Your task to perform on an android device: toggle pop-ups in chrome Image 0: 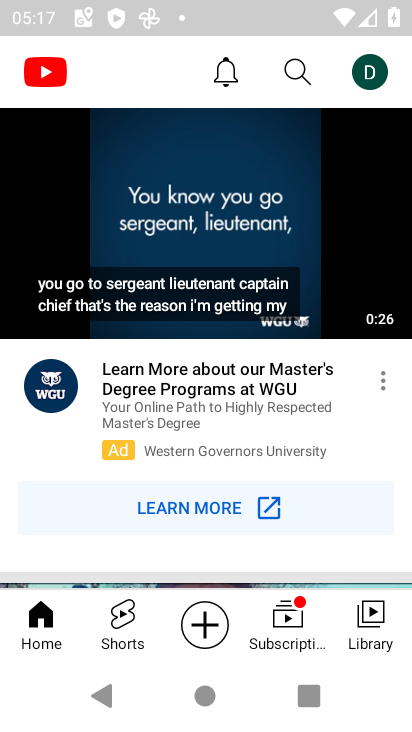
Step 0: press home button
Your task to perform on an android device: toggle pop-ups in chrome Image 1: 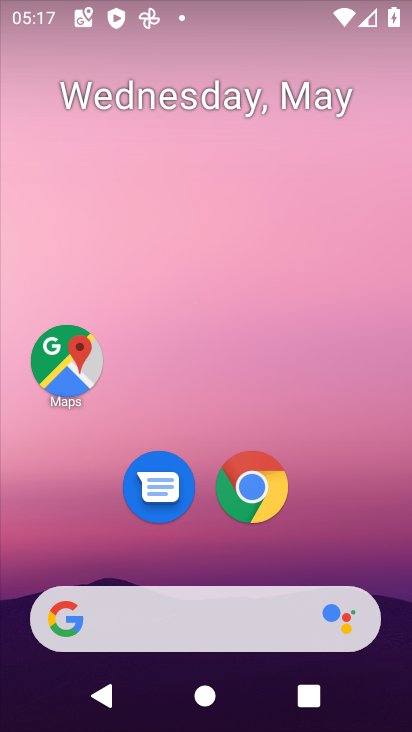
Step 1: click (350, 529)
Your task to perform on an android device: toggle pop-ups in chrome Image 2: 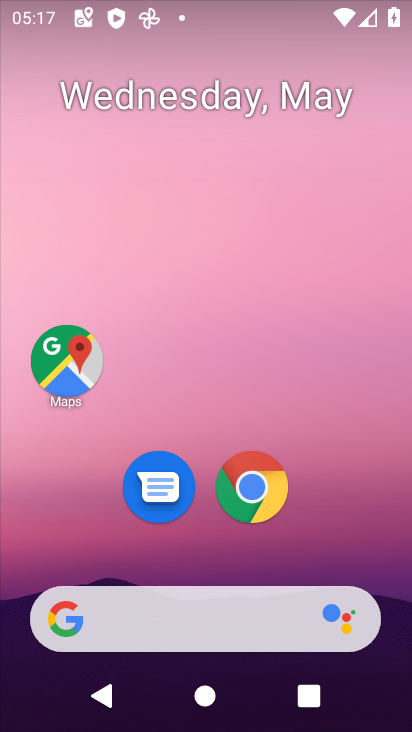
Step 2: click (261, 500)
Your task to perform on an android device: toggle pop-ups in chrome Image 3: 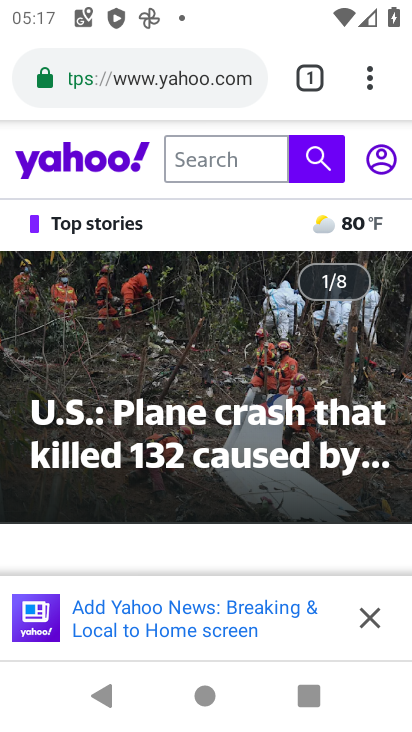
Step 3: click (389, 78)
Your task to perform on an android device: toggle pop-ups in chrome Image 4: 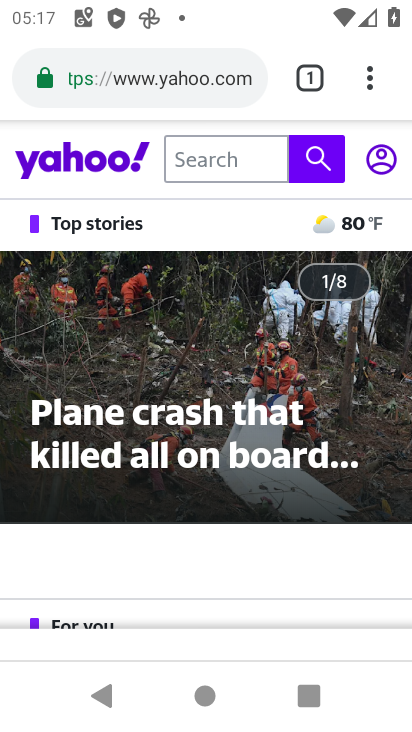
Step 4: click (376, 89)
Your task to perform on an android device: toggle pop-ups in chrome Image 5: 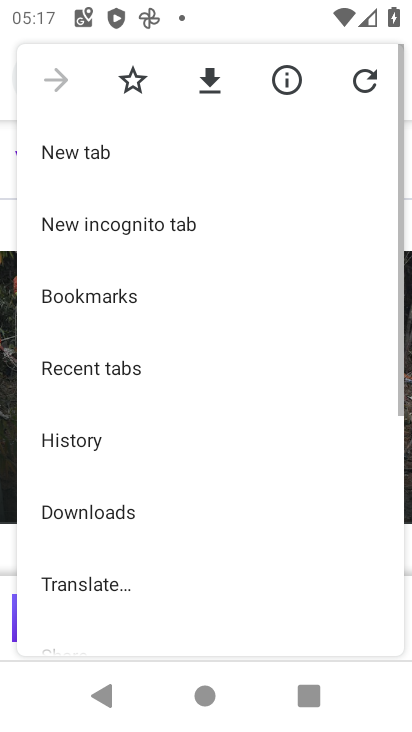
Step 5: drag from (195, 571) to (279, 198)
Your task to perform on an android device: toggle pop-ups in chrome Image 6: 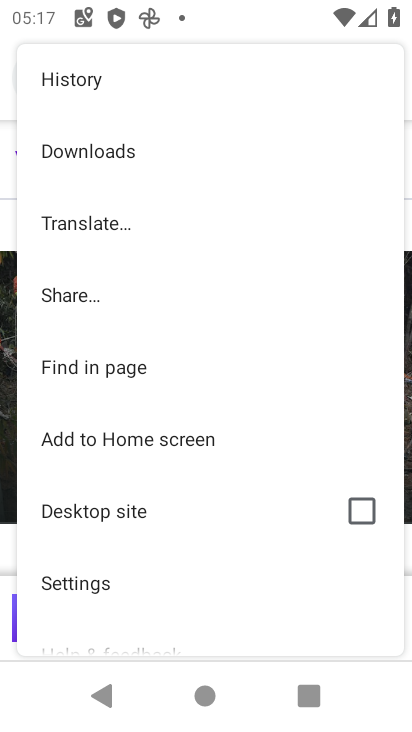
Step 6: drag from (217, 544) to (314, 252)
Your task to perform on an android device: toggle pop-ups in chrome Image 7: 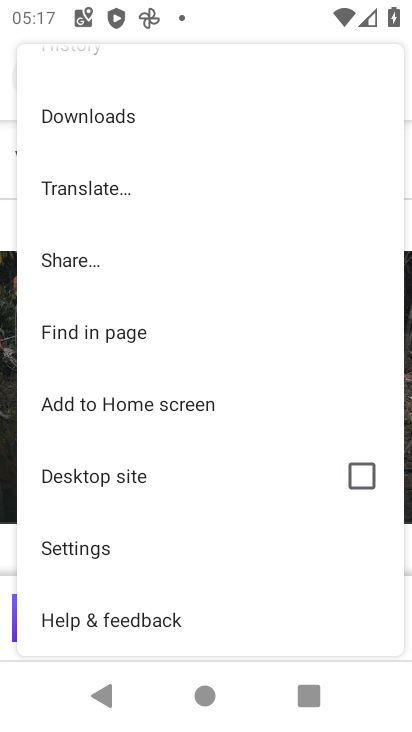
Step 7: click (144, 546)
Your task to perform on an android device: toggle pop-ups in chrome Image 8: 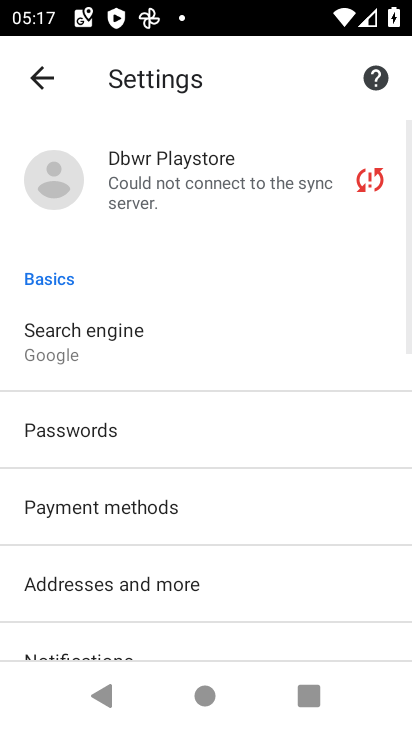
Step 8: drag from (156, 491) to (381, 191)
Your task to perform on an android device: toggle pop-ups in chrome Image 9: 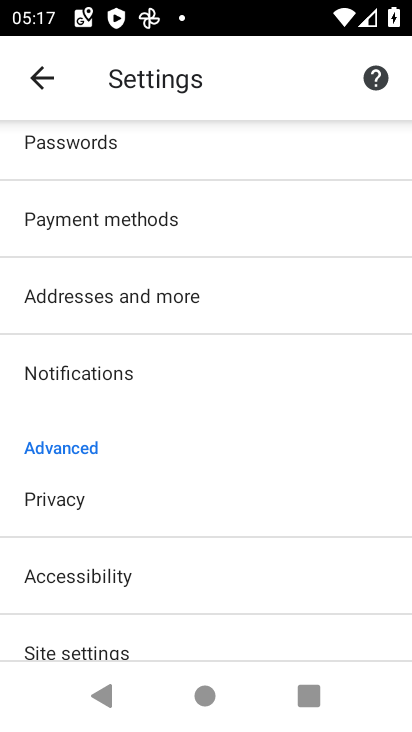
Step 9: drag from (256, 521) to (286, 200)
Your task to perform on an android device: toggle pop-ups in chrome Image 10: 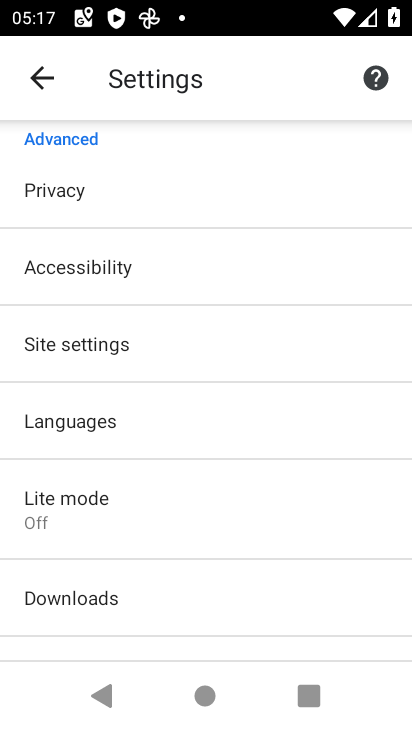
Step 10: drag from (183, 561) to (231, 443)
Your task to perform on an android device: toggle pop-ups in chrome Image 11: 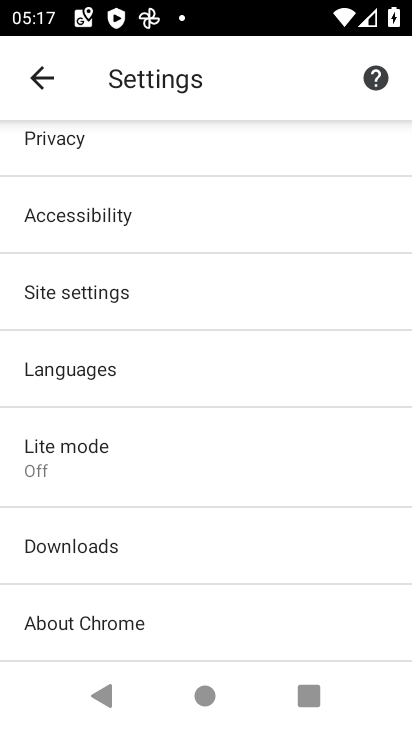
Step 11: click (253, 297)
Your task to perform on an android device: toggle pop-ups in chrome Image 12: 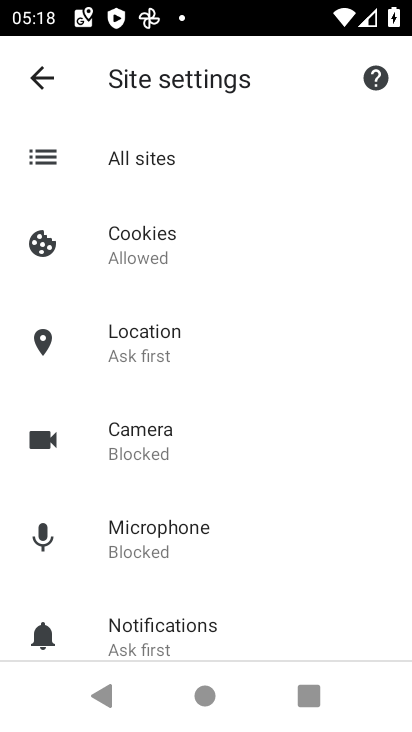
Step 12: drag from (175, 483) to (199, 387)
Your task to perform on an android device: toggle pop-ups in chrome Image 13: 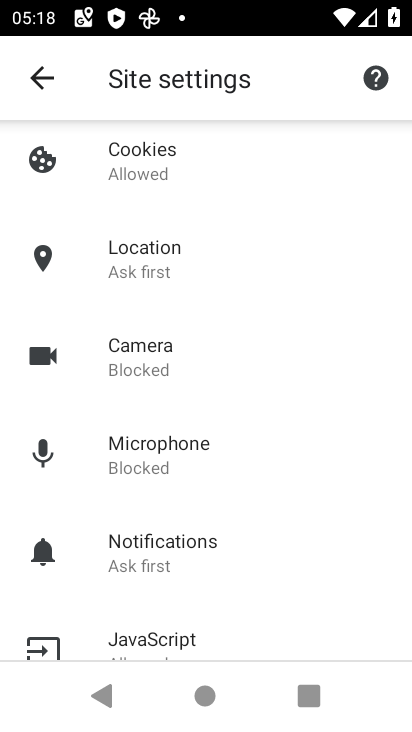
Step 13: drag from (129, 582) to (147, 476)
Your task to perform on an android device: toggle pop-ups in chrome Image 14: 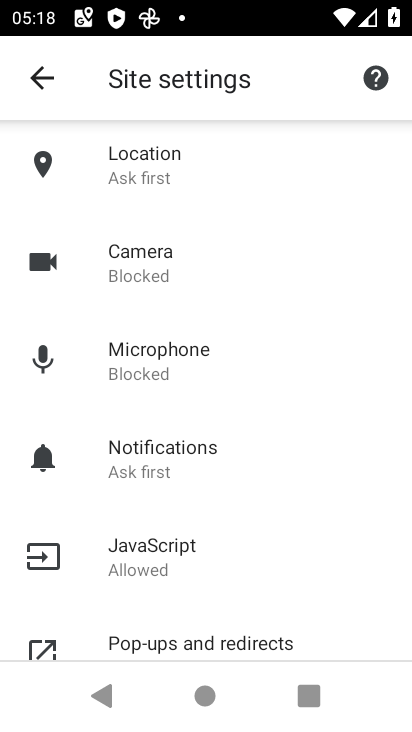
Step 14: click (140, 643)
Your task to perform on an android device: toggle pop-ups in chrome Image 15: 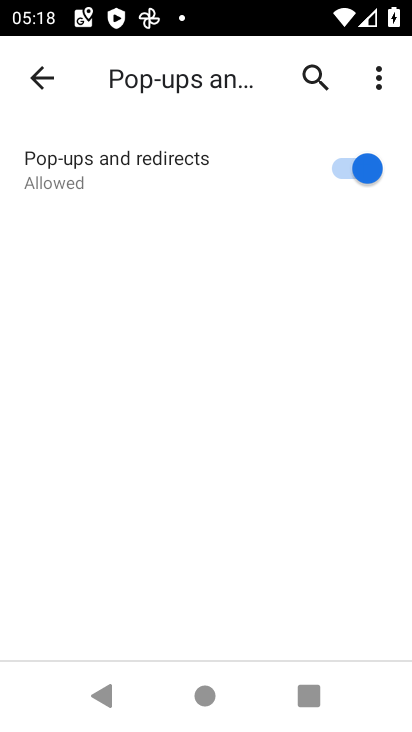
Step 15: click (332, 179)
Your task to perform on an android device: toggle pop-ups in chrome Image 16: 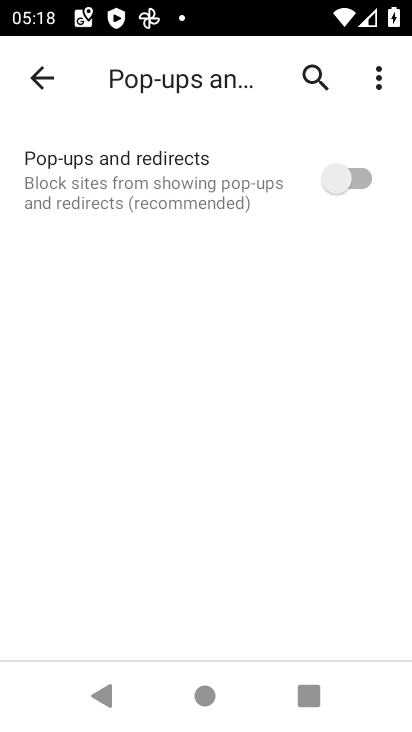
Step 16: task complete